Your task to perform on an android device: Open the web browser Image 0: 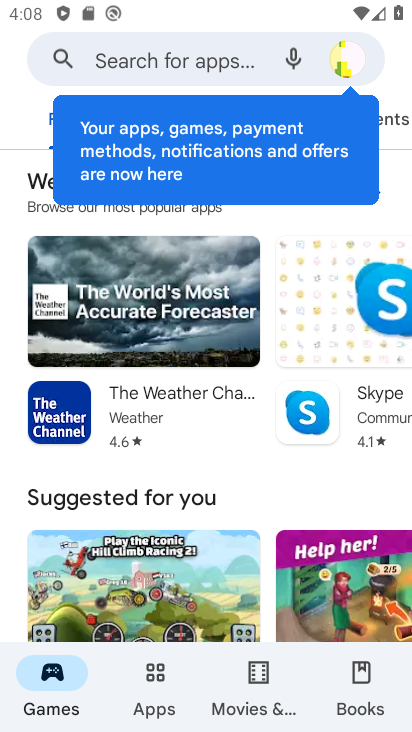
Step 0: press home button
Your task to perform on an android device: Open the web browser Image 1: 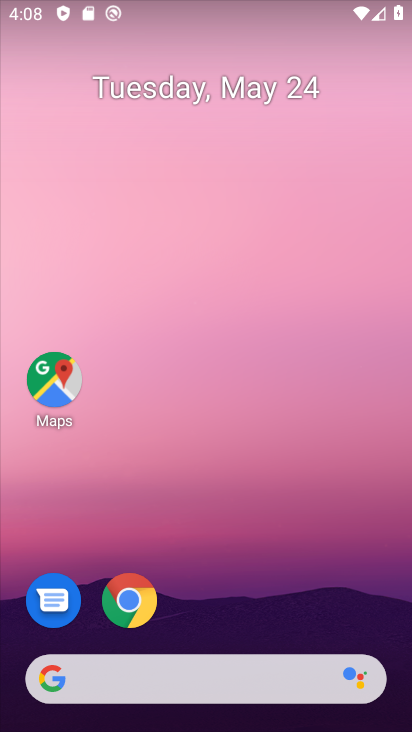
Step 1: click (130, 603)
Your task to perform on an android device: Open the web browser Image 2: 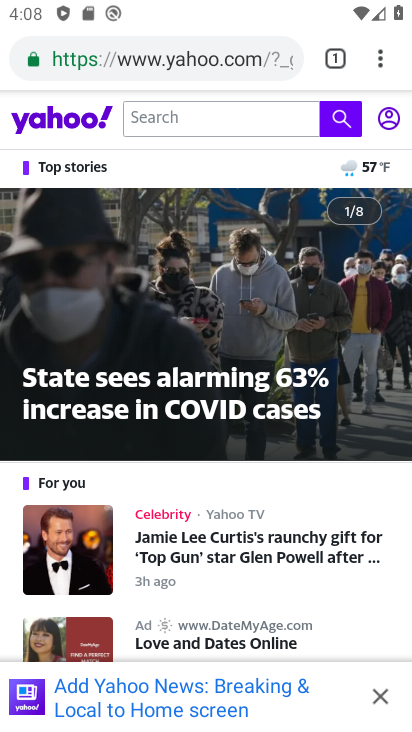
Step 2: task complete